Your task to perform on an android device: View the shopping cart on amazon.com. Image 0: 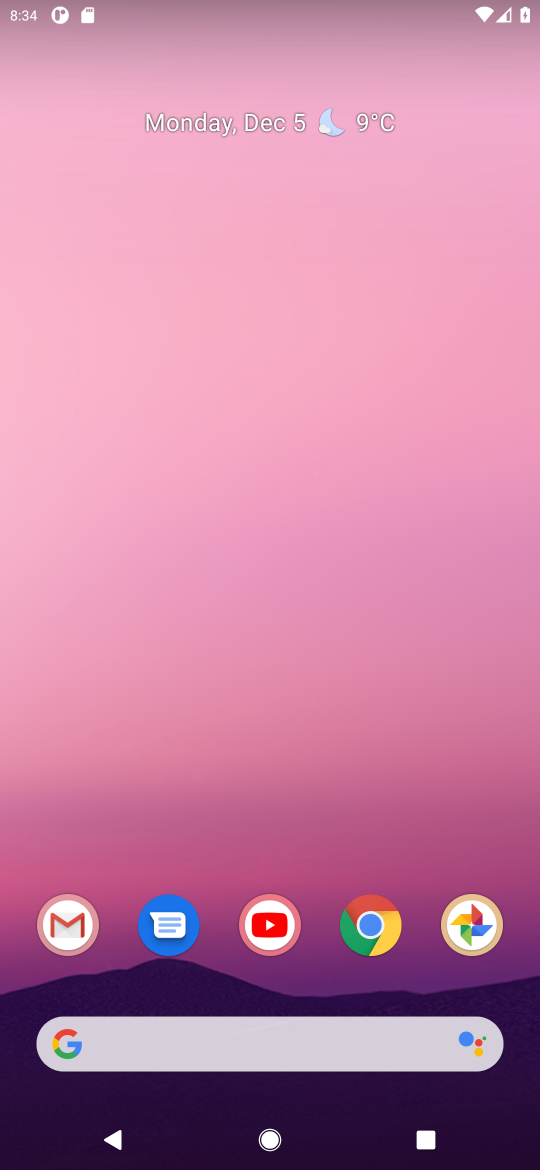
Step 0: click (382, 936)
Your task to perform on an android device: View the shopping cart on amazon.com. Image 1: 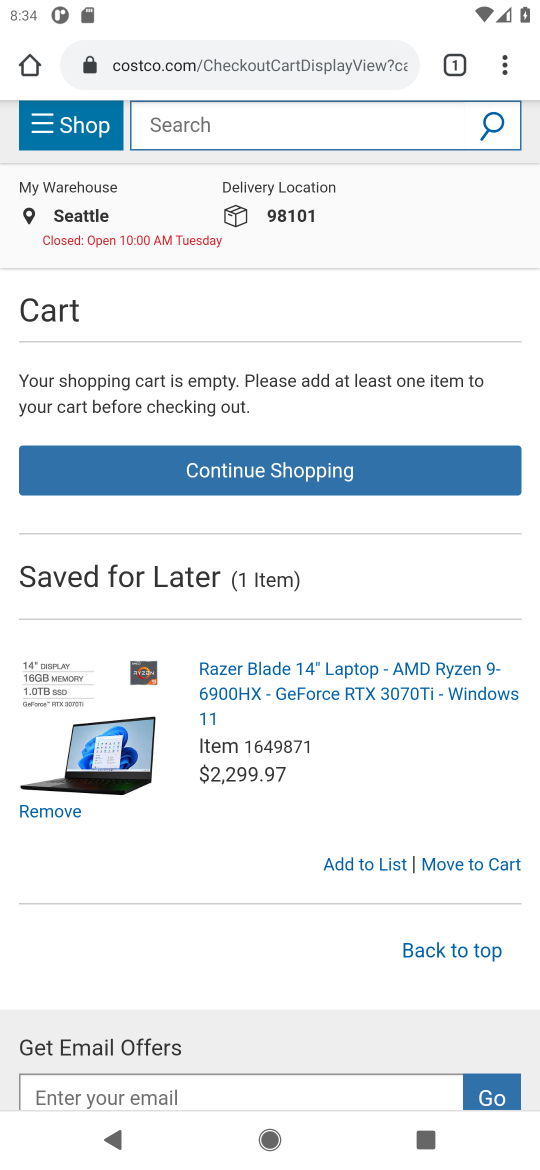
Step 1: click (175, 70)
Your task to perform on an android device: View the shopping cart on amazon.com. Image 2: 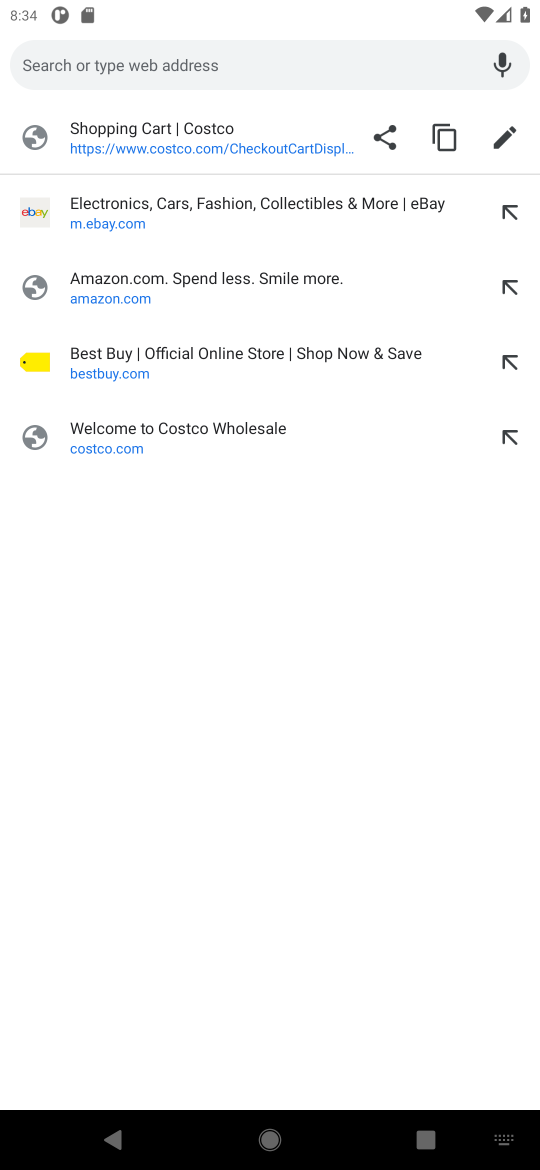
Step 2: click (101, 279)
Your task to perform on an android device: View the shopping cart on amazon.com. Image 3: 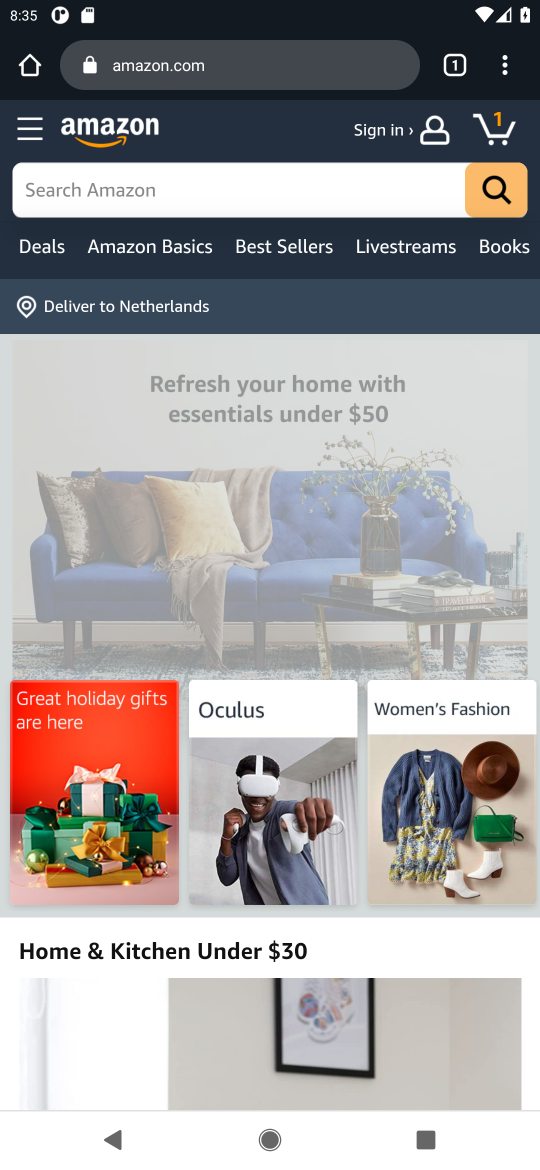
Step 3: click (494, 133)
Your task to perform on an android device: View the shopping cart on amazon.com. Image 4: 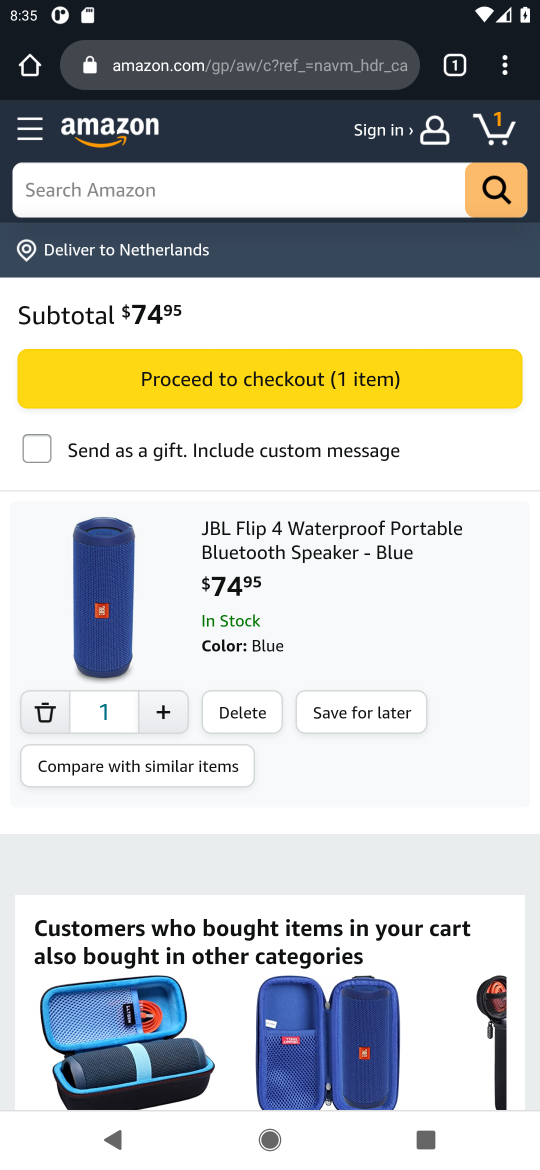
Step 4: task complete